Your task to perform on an android device: When is my next meeting? Image 0: 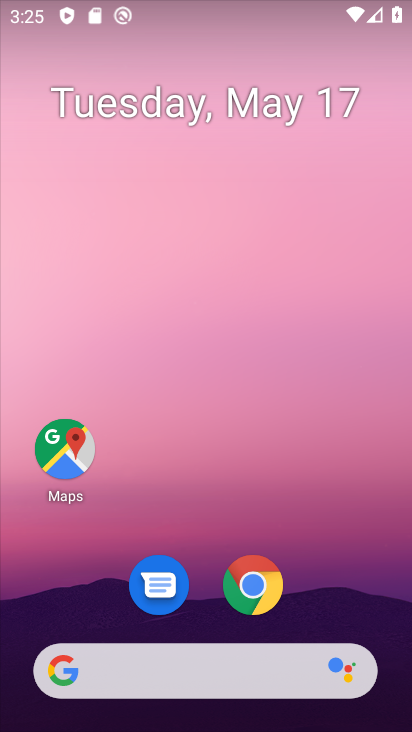
Step 0: drag from (192, 492) to (200, 25)
Your task to perform on an android device: When is my next meeting? Image 1: 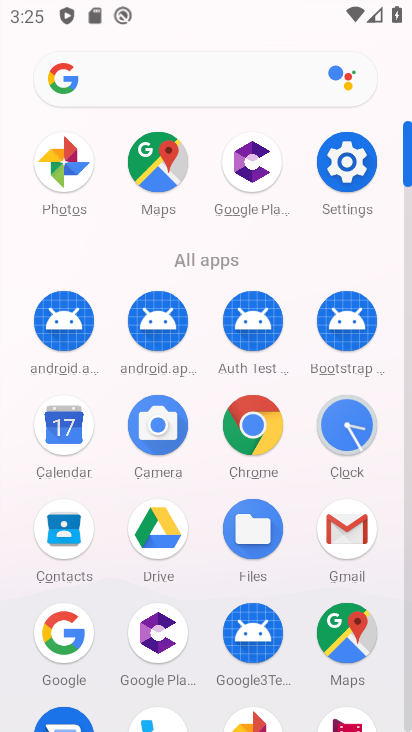
Step 1: click (65, 424)
Your task to perform on an android device: When is my next meeting? Image 2: 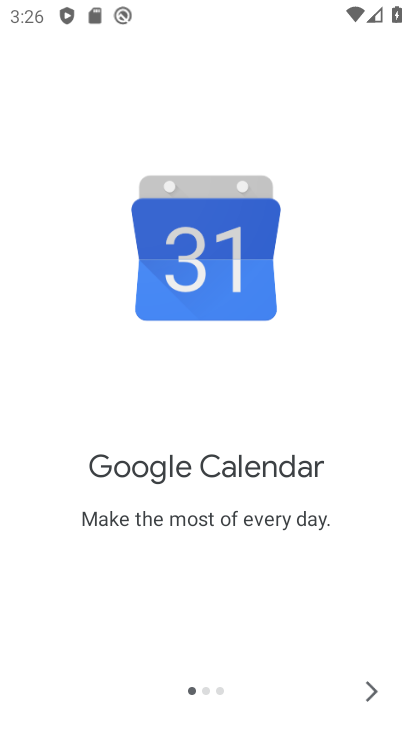
Step 2: click (363, 686)
Your task to perform on an android device: When is my next meeting? Image 3: 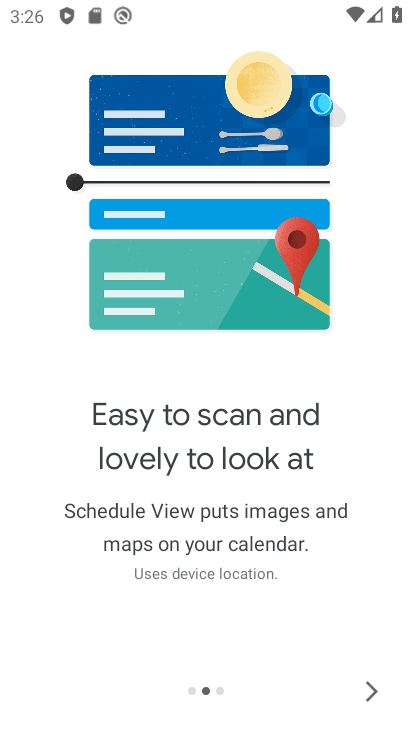
Step 3: click (363, 686)
Your task to perform on an android device: When is my next meeting? Image 4: 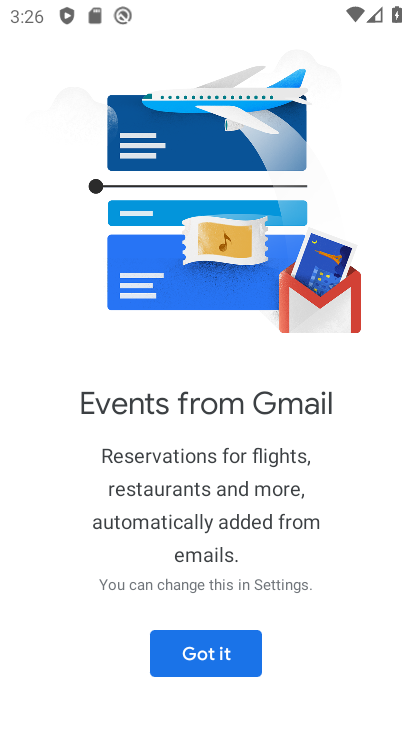
Step 4: click (237, 647)
Your task to perform on an android device: When is my next meeting? Image 5: 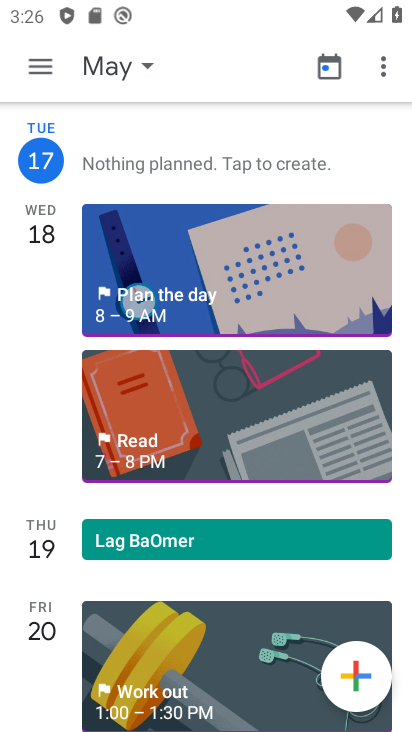
Step 5: task complete